Your task to perform on an android device: Go to Android settings Image 0: 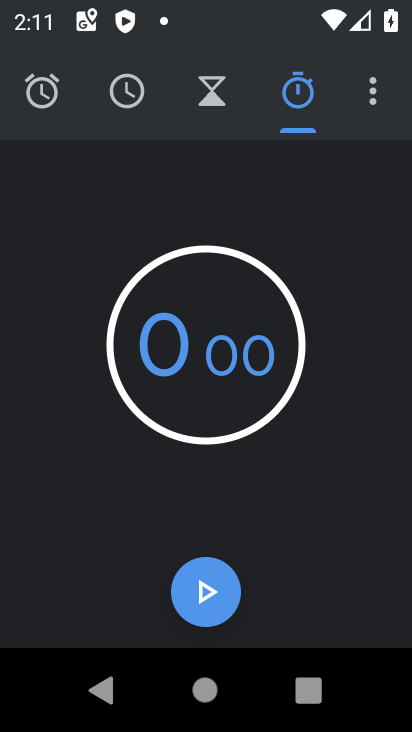
Step 0: press home button
Your task to perform on an android device: Go to Android settings Image 1: 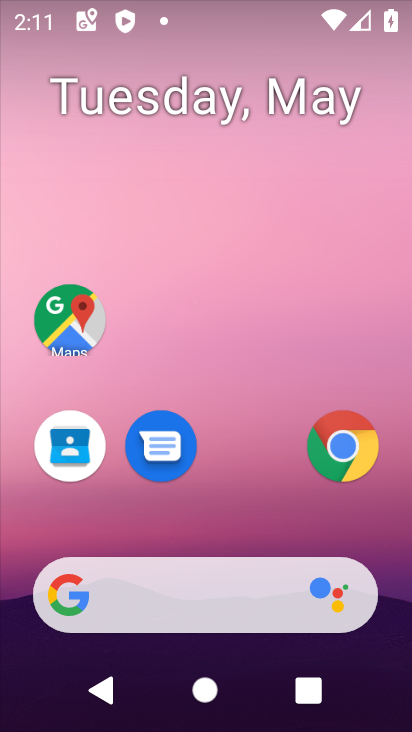
Step 1: drag from (214, 559) to (36, 65)
Your task to perform on an android device: Go to Android settings Image 2: 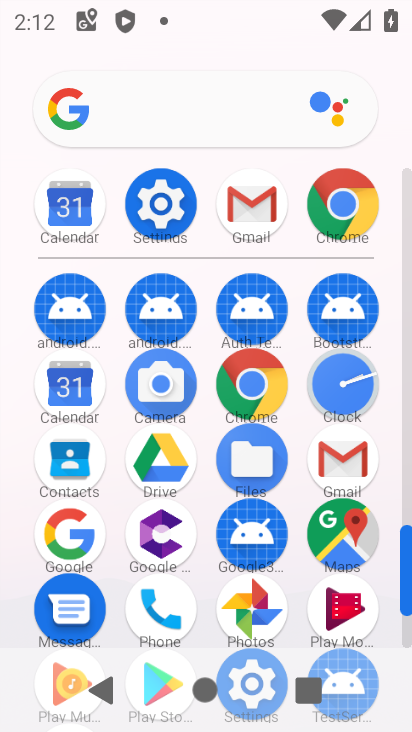
Step 2: drag from (202, 642) to (173, 209)
Your task to perform on an android device: Go to Android settings Image 3: 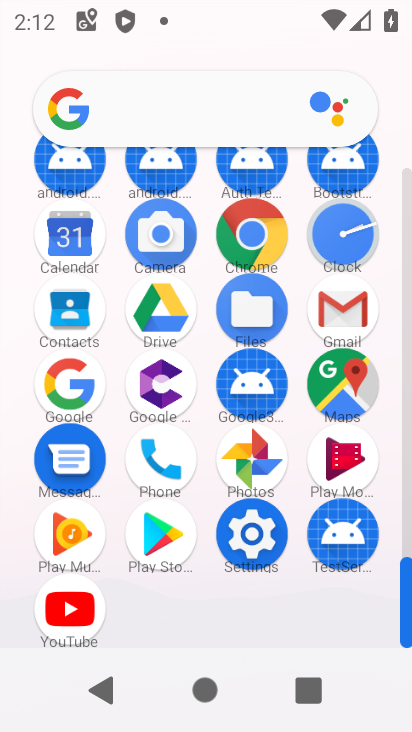
Step 3: click (276, 547)
Your task to perform on an android device: Go to Android settings Image 4: 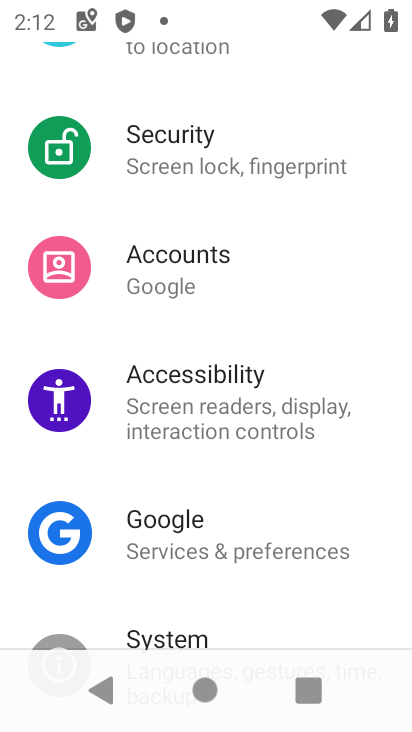
Step 4: task complete